Your task to perform on an android device: turn on wifi Image 0: 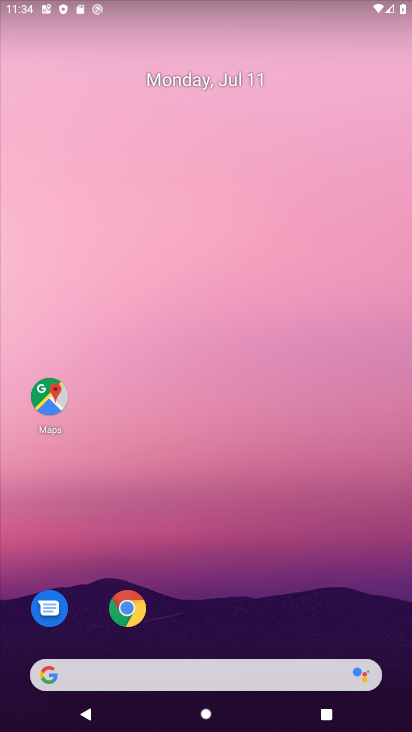
Step 0: drag from (177, 10) to (258, 697)
Your task to perform on an android device: turn on wifi Image 1: 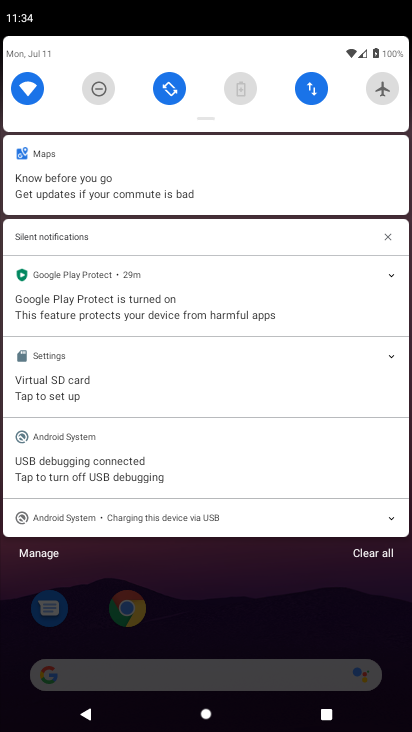
Step 1: task complete